Your task to perform on an android device: What's the weather today? Image 0: 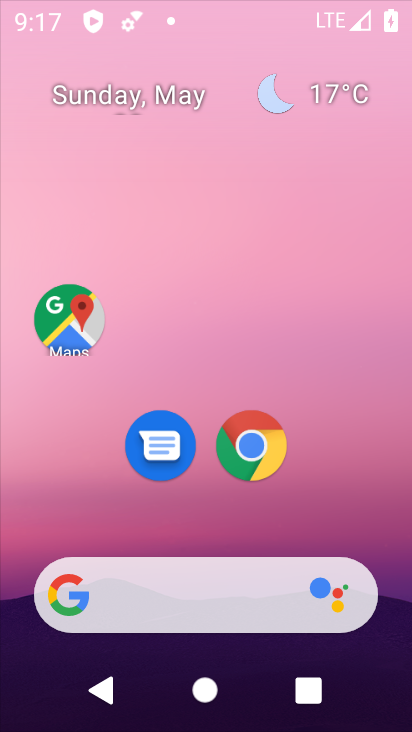
Step 0: click (288, 60)
Your task to perform on an android device: What's the weather today? Image 1: 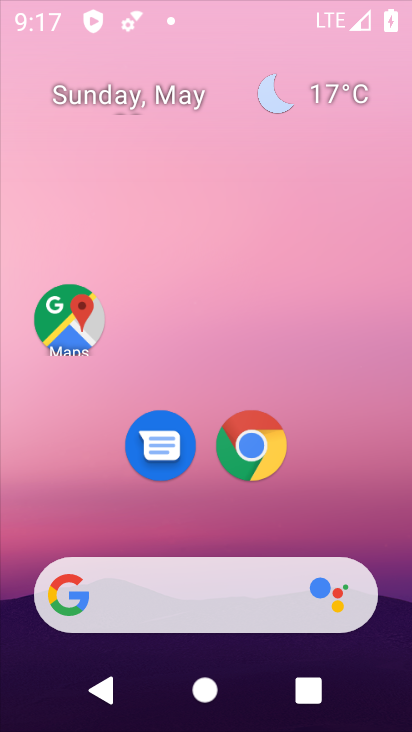
Step 1: drag from (232, 524) to (219, 137)
Your task to perform on an android device: What's the weather today? Image 2: 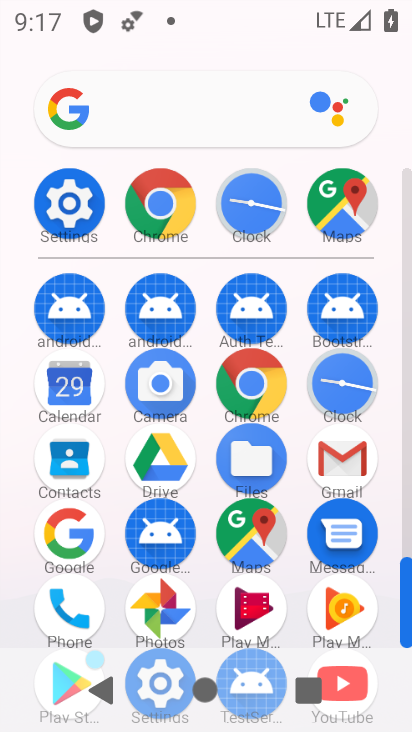
Step 2: click (204, 119)
Your task to perform on an android device: What's the weather today? Image 3: 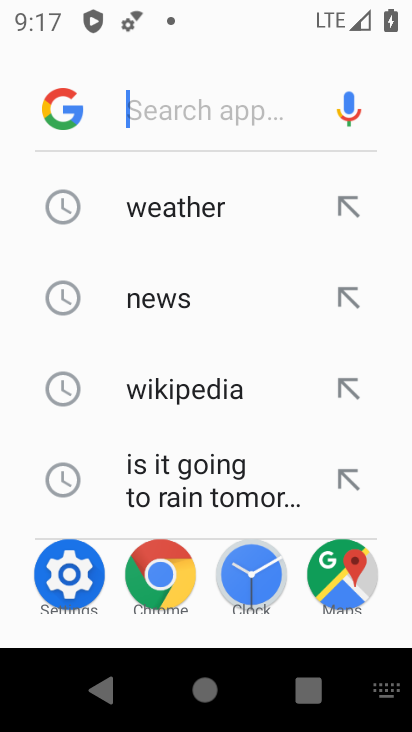
Step 3: click (149, 238)
Your task to perform on an android device: What's the weather today? Image 4: 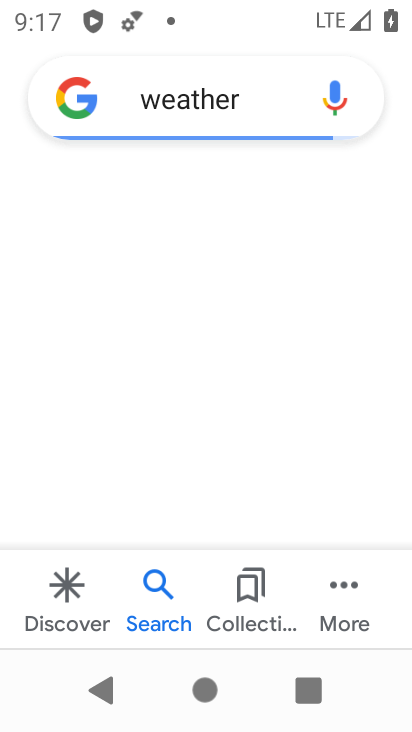
Step 4: task complete